Your task to perform on an android device: toggle notification dots Image 0: 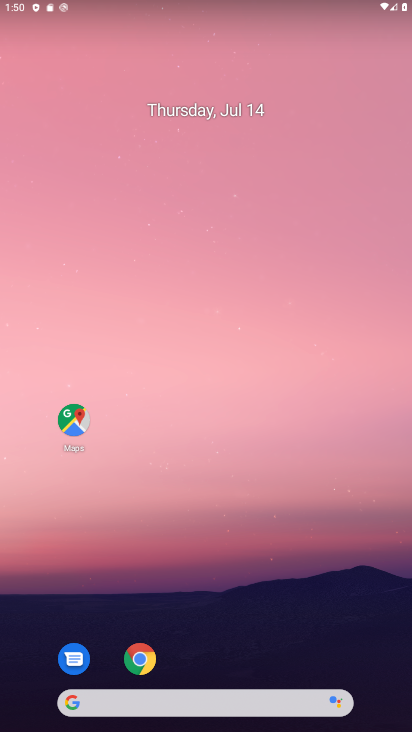
Step 0: drag from (234, 721) to (348, 82)
Your task to perform on an android device: toggle notification dots Image 1: 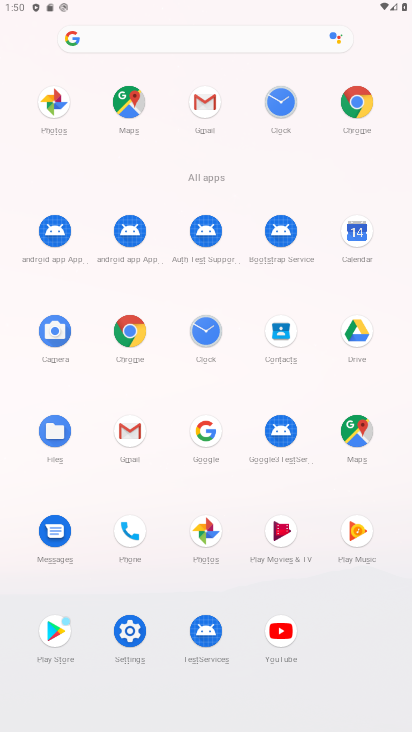
Step 1: click (135, 620)
Your task to perform on an android device: toggle notification dots Image 2: 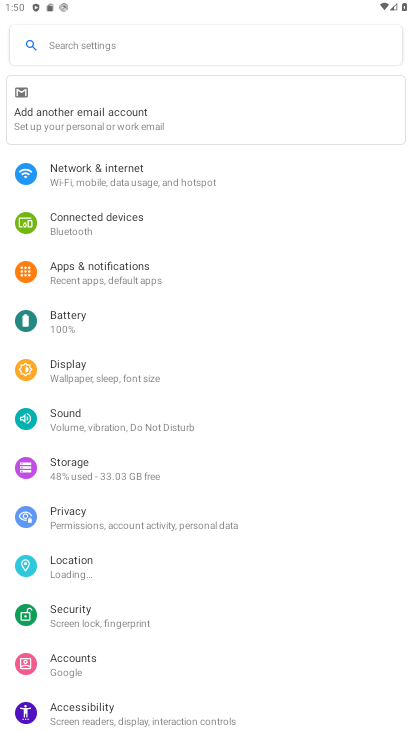
Step 2: click (133, 41)
Your task to perform on an android device: toggle notification dots Image 3: 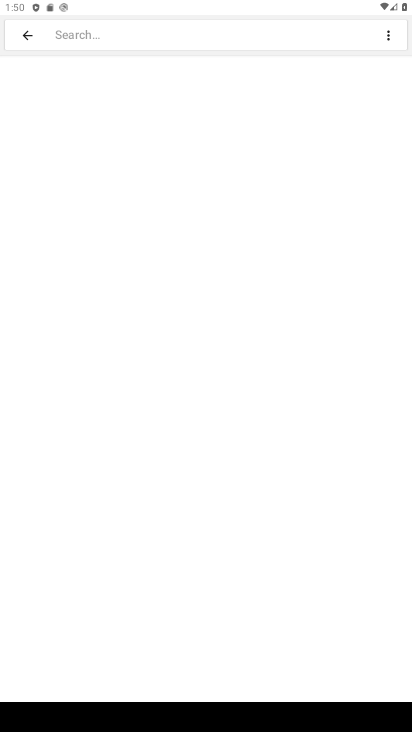
Step 3: drag from (382, 714) to (401, 631)
Your task to perform on an android device: toggle notification dots Image 4: 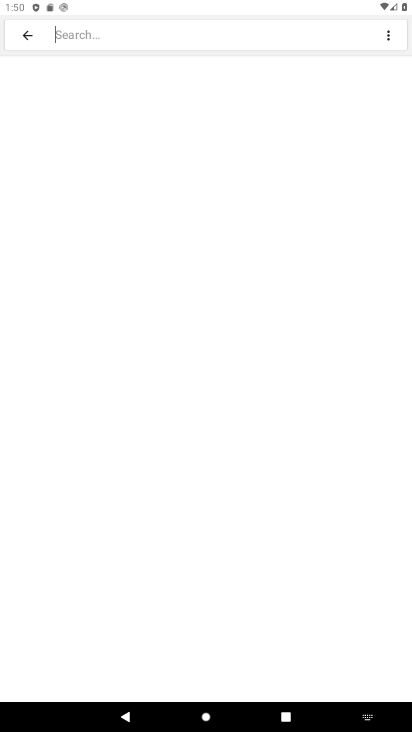
Step 4: click (383, 714)
Your task to perform on an android device: toggle notification dots Image 5: 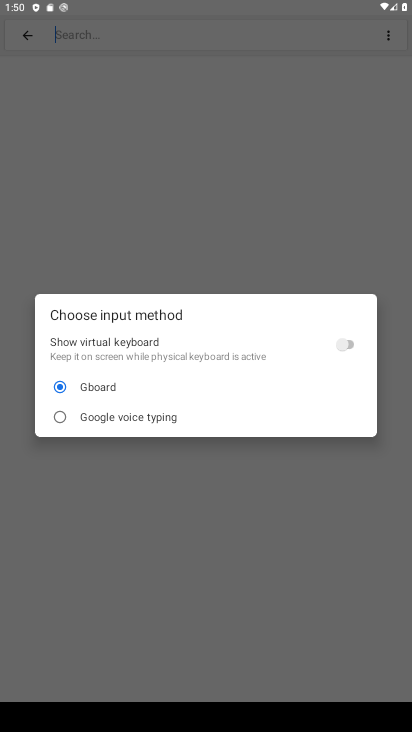
Step 5: click (348, 337)
Your task to perform on an android device: toggle notification dots Image 6: 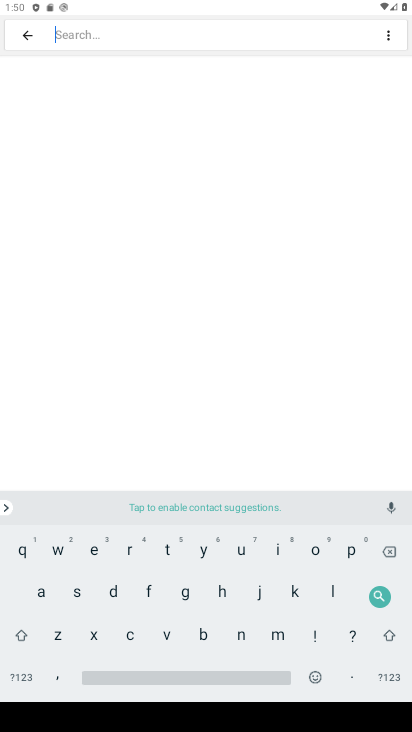
Step 6: click (109, 601)
Your task to perform on an android device: toggle notification dots Image 7: 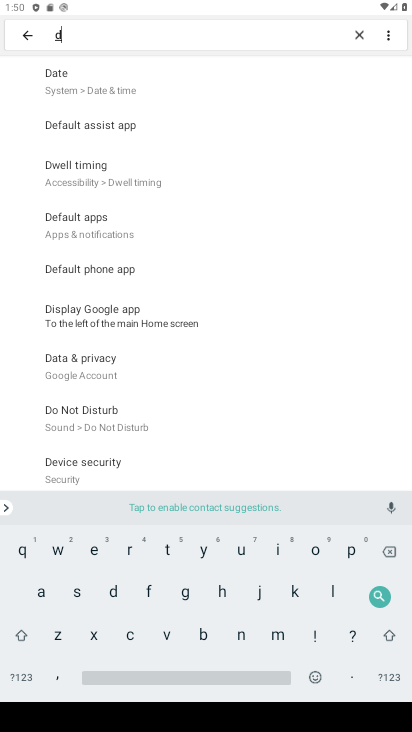
Step 7: click (319, 549)
Your task to perform on an android device: toggle notification dots Image 8: 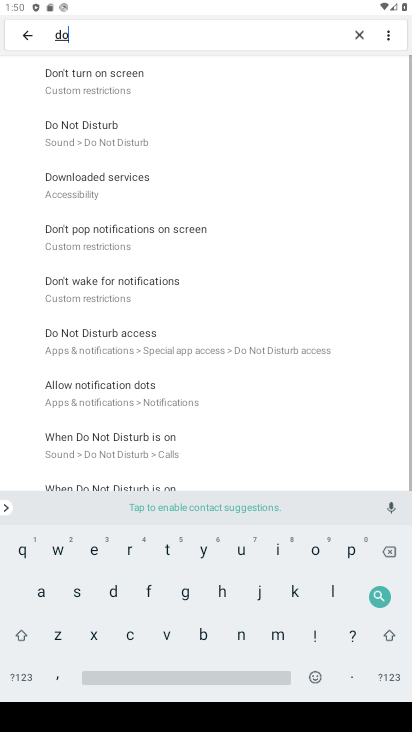
Step 8: click (168, 554)
Your task to perform on an android device: toggle notification dots Image 9: 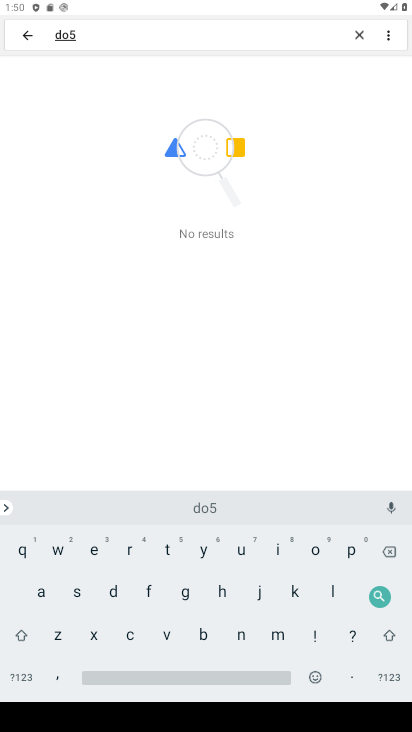
Step 9: click (394, 552)
Your task to perform on an android device: toggle notification dots Image 10: 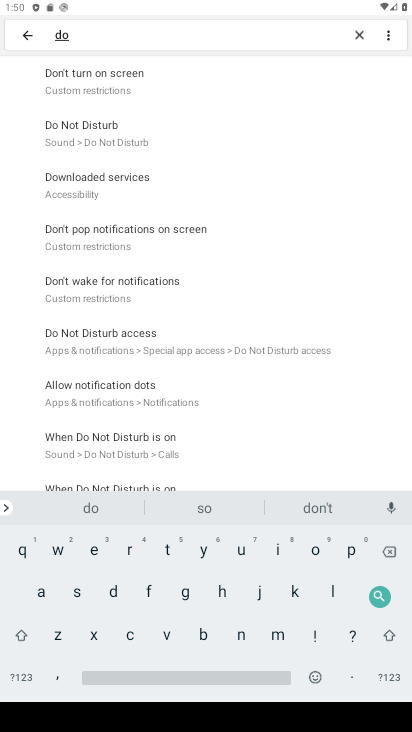
Step 10: click (131, 398)
Your task to perform on an android device: toggle notification dots Image 11: 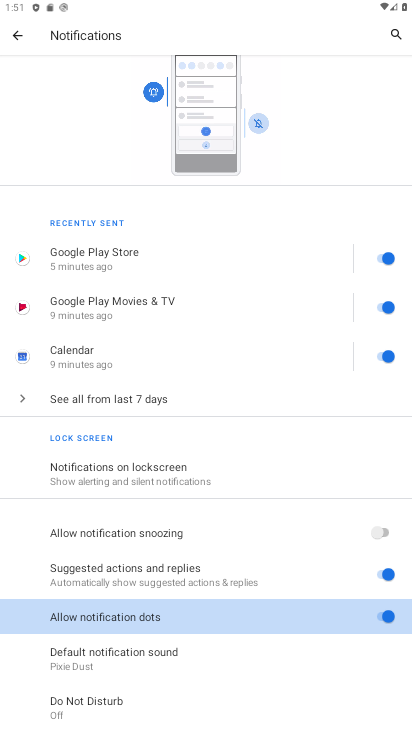
Step 11: click (135, 615)
Your task to perform on an android device: toggle notification dots Image 12: 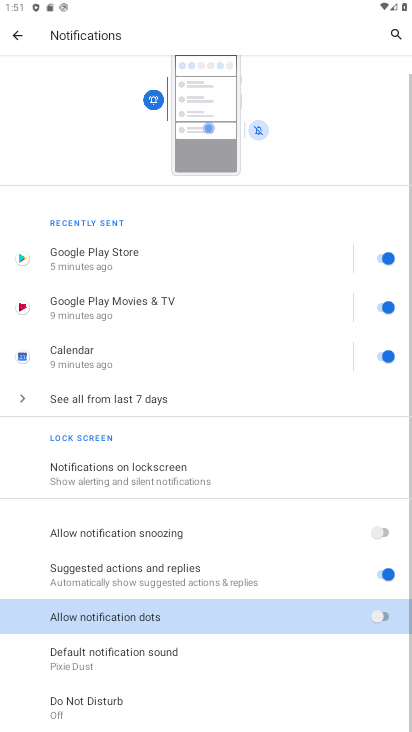
Step 12: click (134, 611)
Your task to perform on an android device: toggle notification dots Image 13: 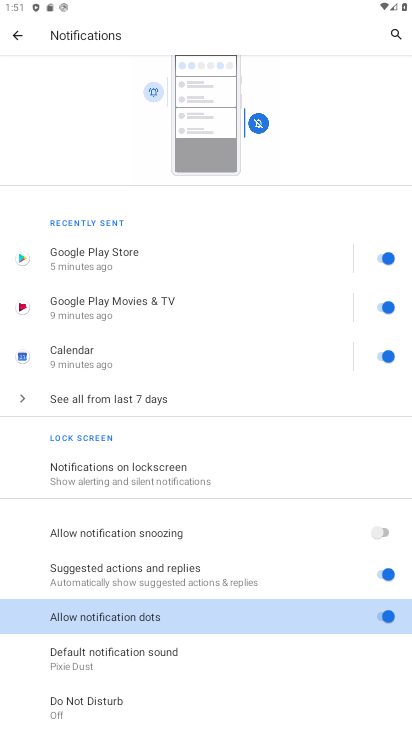
Step 13: task complete